Your task to perform on an android device: Go to notification settings Image 0: 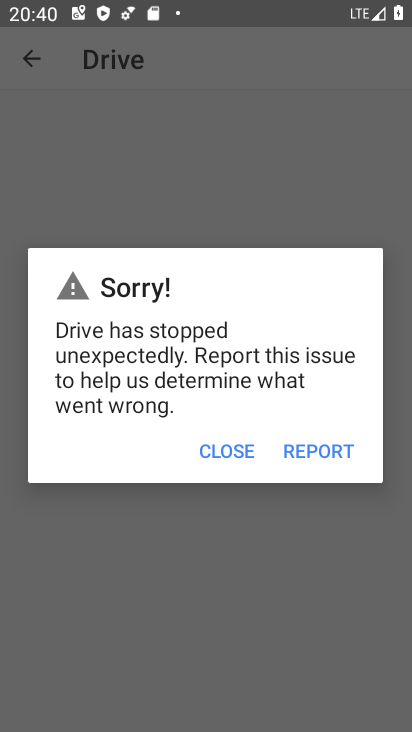
Step 0: press home button
Your task to perform on an android device: Go to notification settings Image 1: 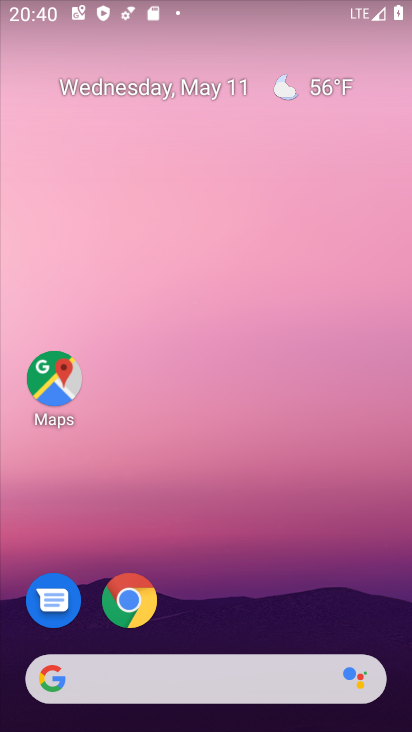
Step 1: drag from (258, 587) to (248, 32)
Your task to perform on an android device: Go to notification settings Image 2: 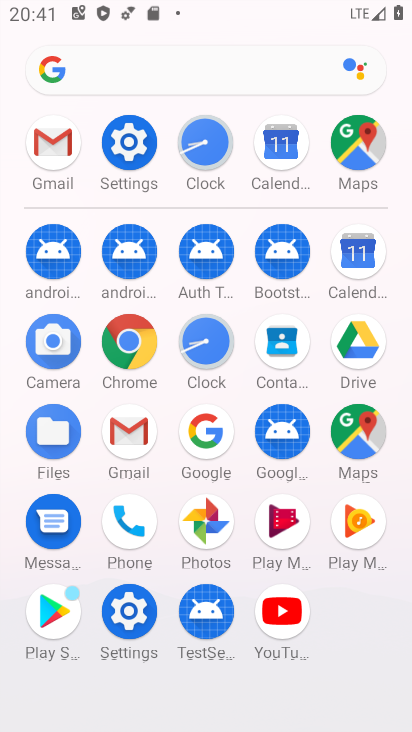
Step 2: click (129, 142)
Your task to perform on an android device: Go to notification settings Image 3: 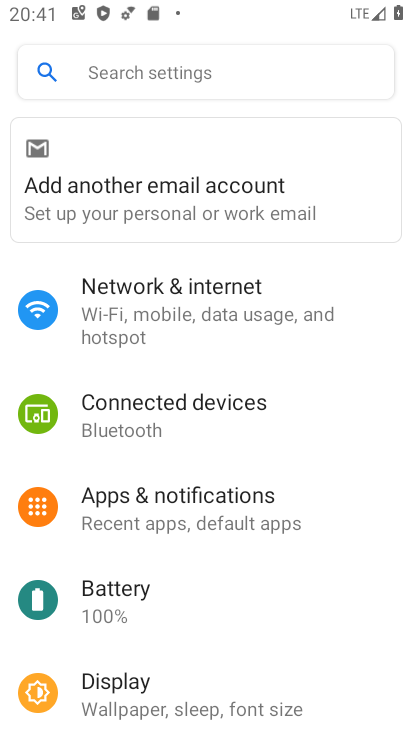
Step 3: drag from (174, 572) to (201, 433)
Your task to perform on an android device: Go to notification settings Image 4: 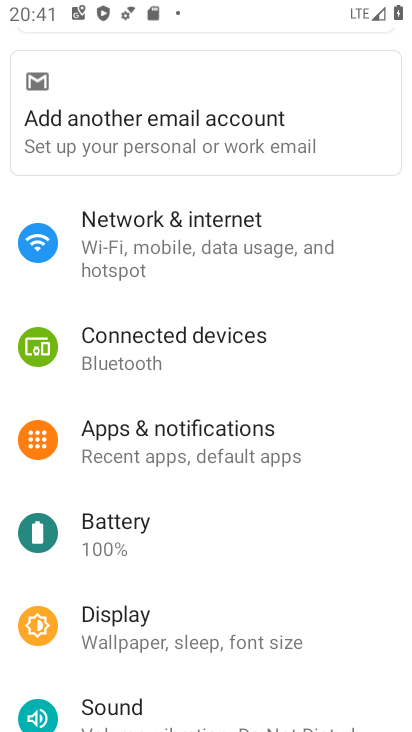
Step 4: click (178, 431)
Your task to perform on an android device: Go to notification settings Image 5: 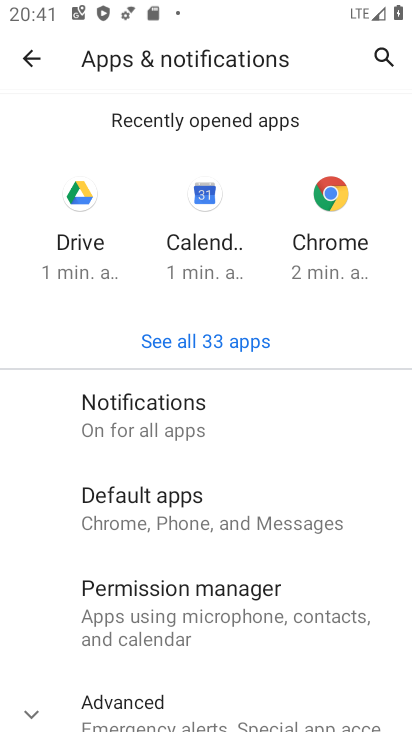
Step 5: click (183, 402)
Your task to perform on an android device: Go to notification settings Image 6: 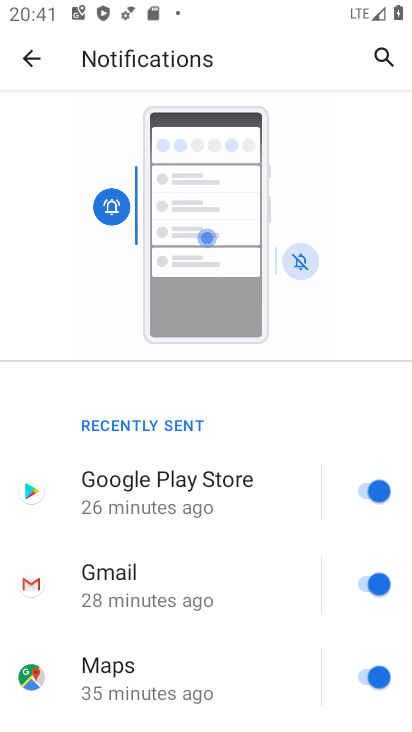
Step 6: task complete